Your task to perform on an android device: toggle translation in the chrome app Image 0: 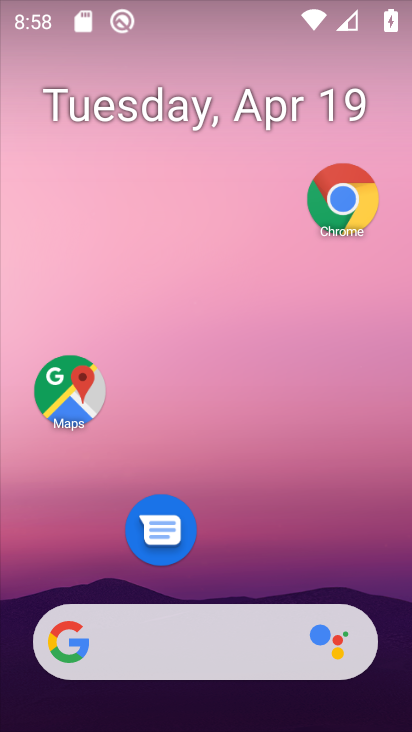
Step 0: click (319, 84)
Your task to perform on an android device: toggle translation in the chrome app Image 1: 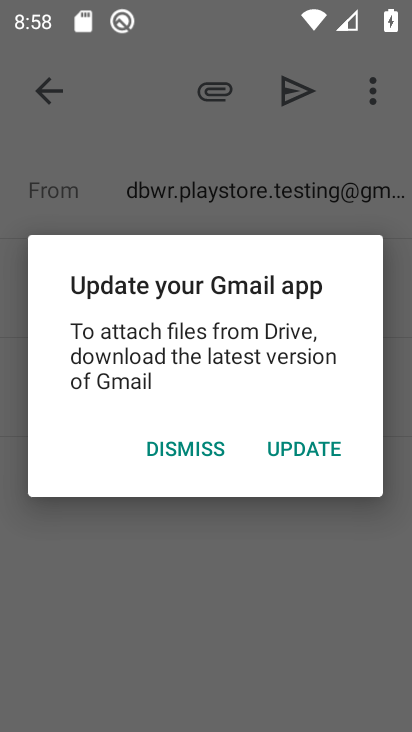
Step 1: press home button
Your task to perform on an android device: toggle translation in the chrome app Image 2: 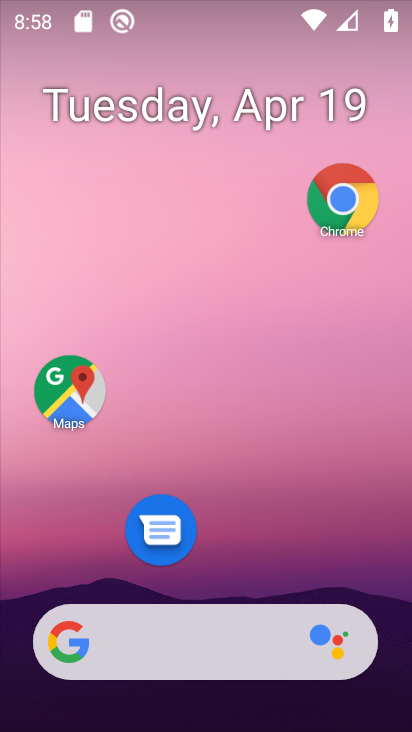
Step 2: drag from (208, 568) to (265, 4)
Your task to perform on an android device: toggle translation in the chrome app Image 3: 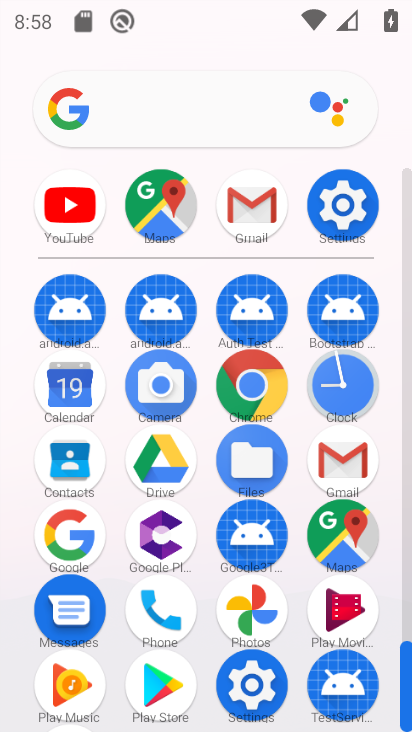
Step 3: click (248, 375)
Your task to perform on an android device: toggle translation in the chrome app Image 4: 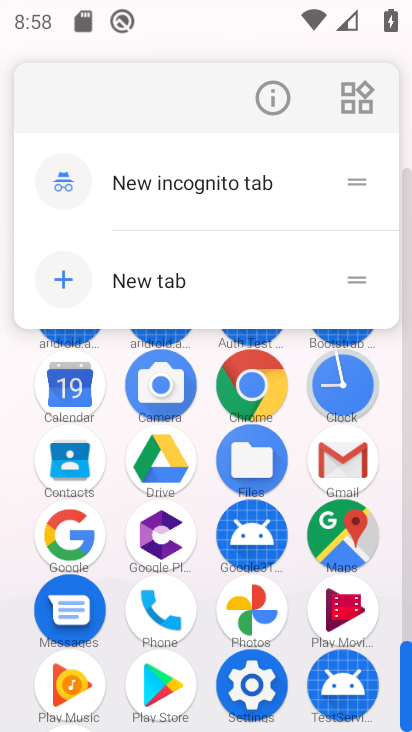
Step 4: click (275, 92)
Your task to perform on an android device: toggle translation in the chrome app Image 5: 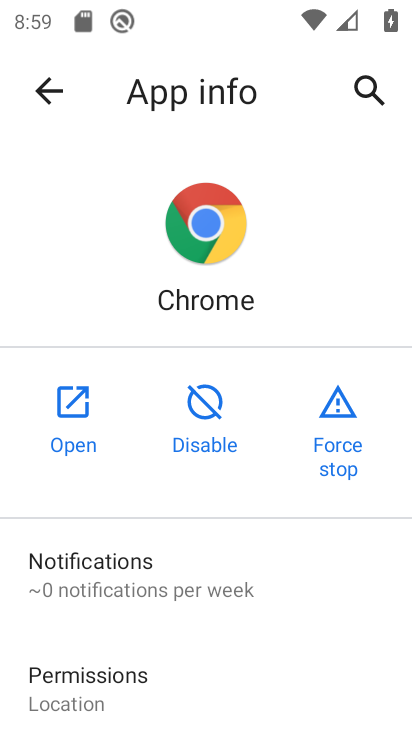
Step 5: click (67, 412)
Your task to perform on an android device: toggle translation in the chrome app Image 6: 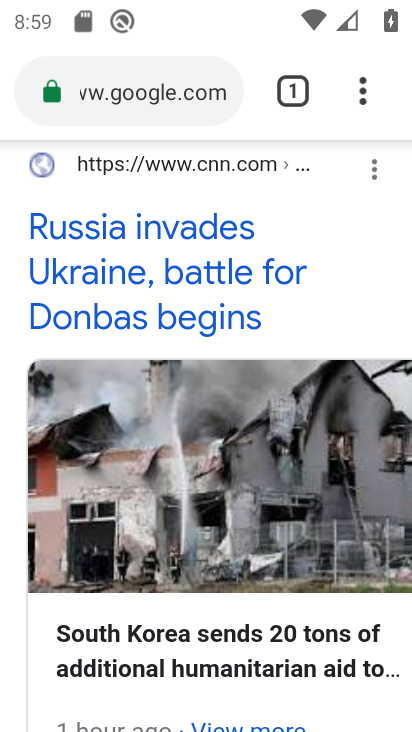
Step 6: click (192, 83)
Your task to perform on an android device: toggle translation in the chrome app Image 7: 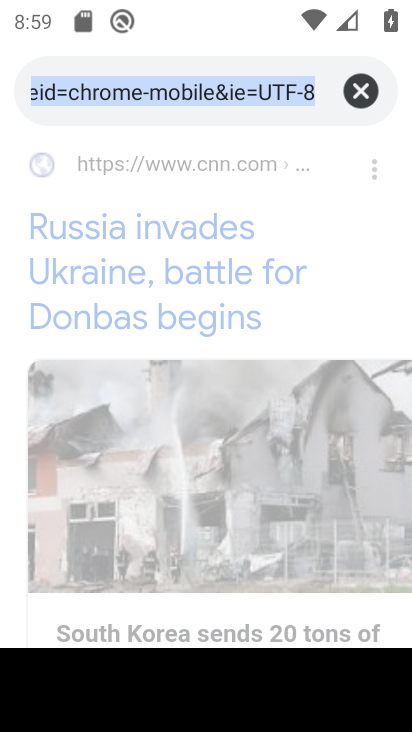
Step 7: click (357, 94)
Your task to perform on an android device: toggle translation in the chrome app Image 8: 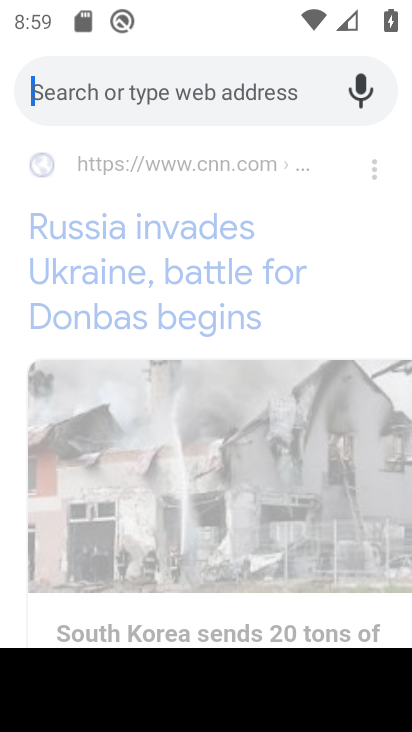
Step 8: drag from (266, 242) to (288, 452)
Your task to perform on an android device: toggle translation in the chrome app Image 9: 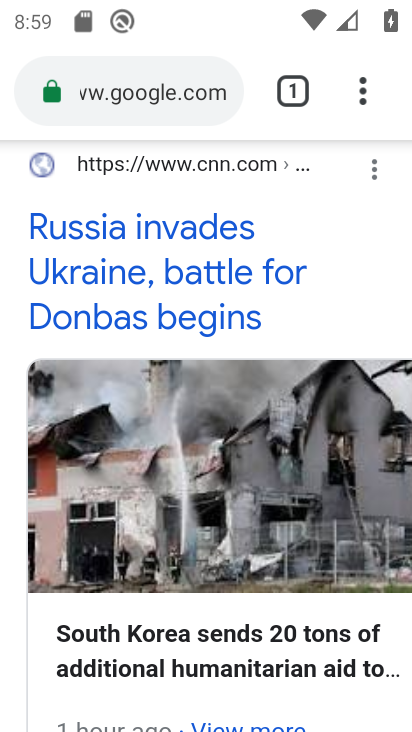
Step 9: drag from (362, 100) to (116, 554)
Your task to perform on an android device: toggle translation in the chrome app Image 10: 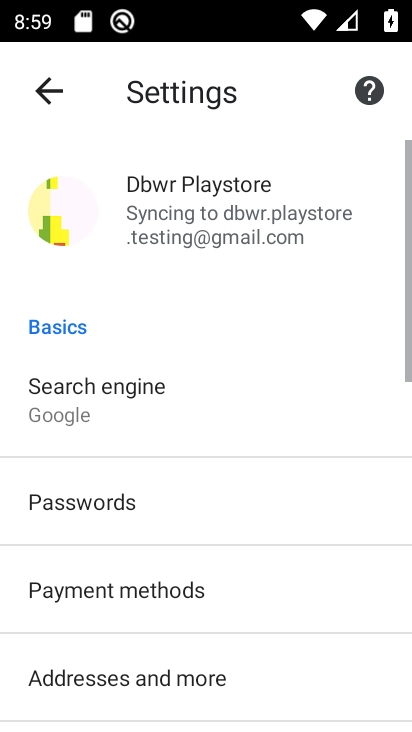
Step 10: drag from (154, 605) to (292, 75)
Your task to perform on an android device: toggle translation in the chrome app Image 11: 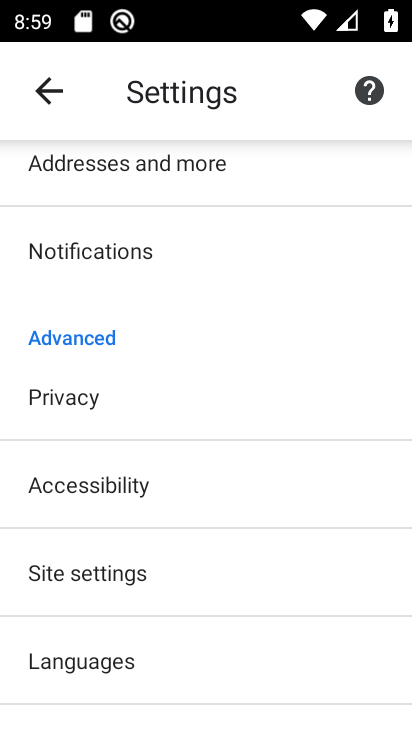
Step 11: click (102, 575)
Your task to perform on an android device: toggle translation in the chrome app Image 12: 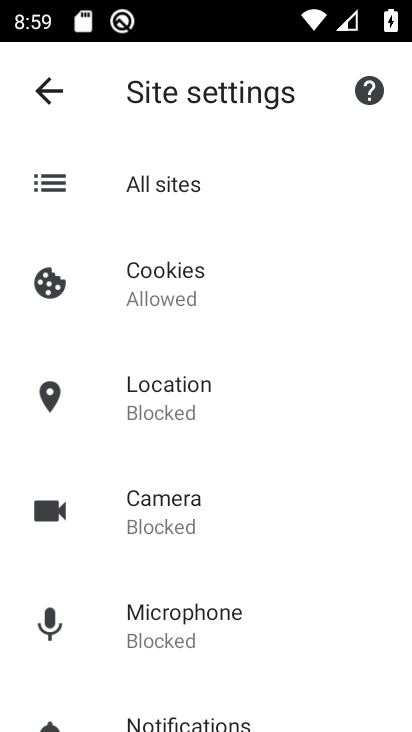
Step 12: click (40, 82)
Your task to perform on an android device: toggle translation in the chrome app Image 13: 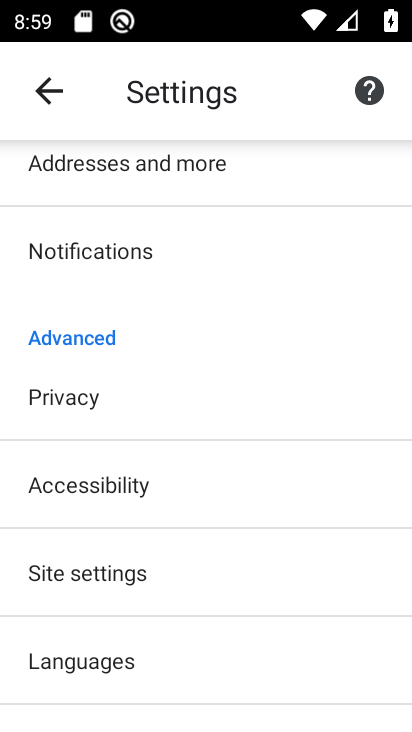
Step 13: click (99, 650)
Your task to perform on an android device: toggle translation in the chrome app Image 14: 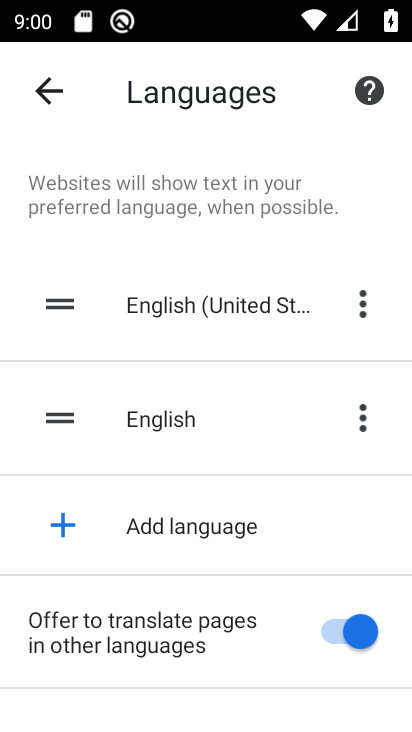
Step 14: drag from (148, 625) to (233, 147)
Your task to perform on an android device: toggle translation in the chrome app Image 15: 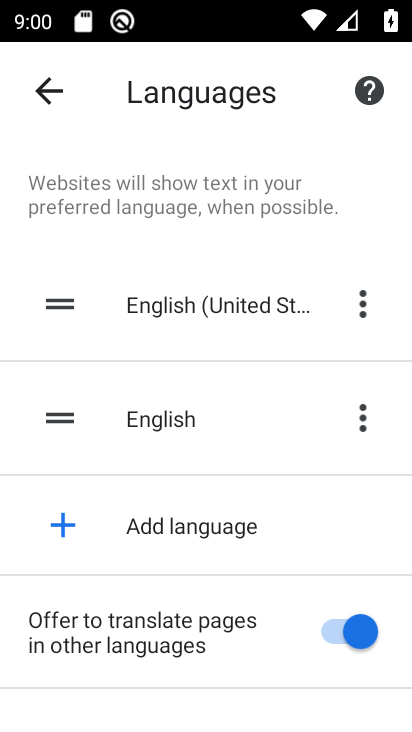
Step 15: click (338, 626)
Your task to perform on an android device: toggle translation in the chrome app Image 16: 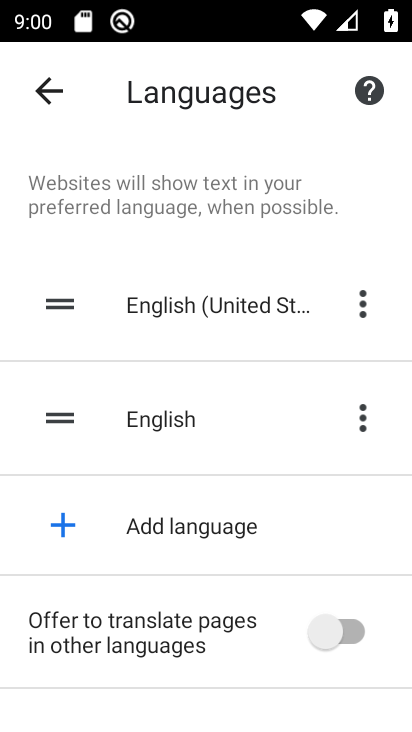
Step 16: task complete